Your task to perform on an android device: manage bookmarks in the chrome app Image 0: 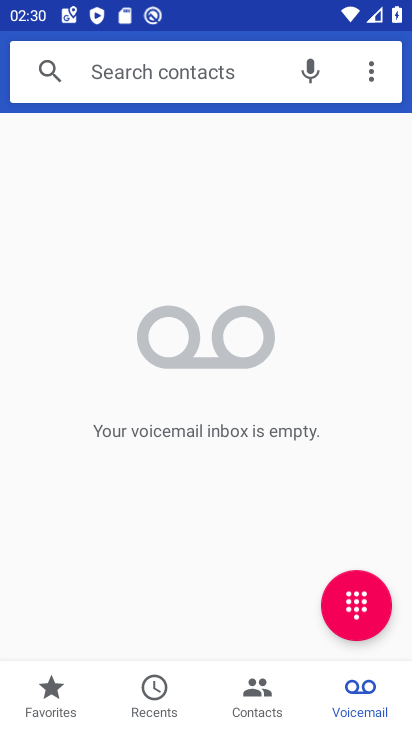
Step 0: press home button
Your task to perform on an android device: manage bookmarks in the chrome app Image 1: 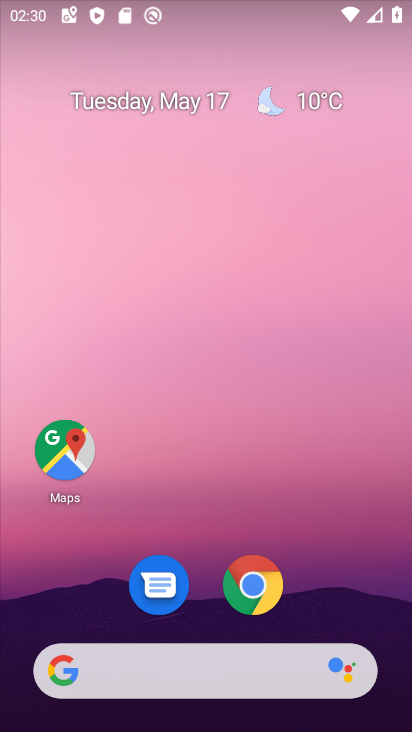
Step 1: click (263, 603)
Your task to perform on an android device: manage bookmarks in the chrome app Image 2: 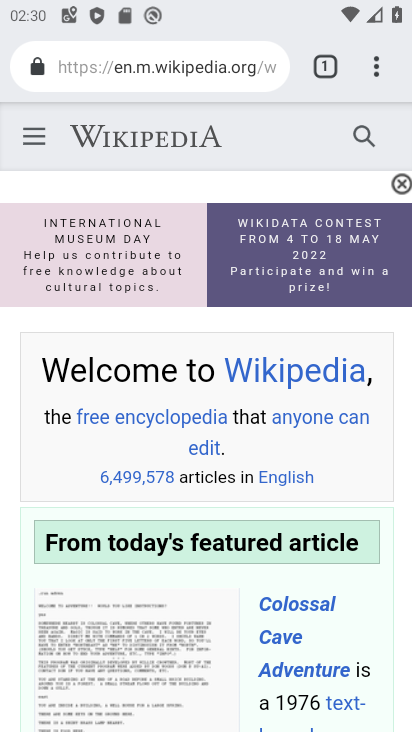
Step 2: click (378, 63)
Your task to perform on an android device: manage bookmarks in the chrome app Image 3: 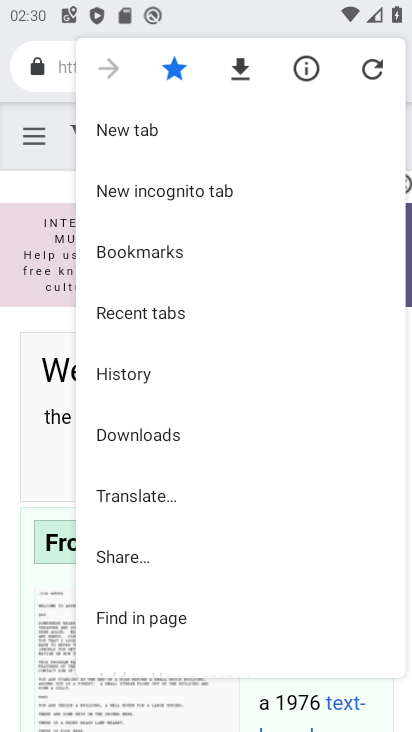
Step 3: click (198, 245)
Your task to perform on an android device: manage bookmarks in the chrome app Image 4: 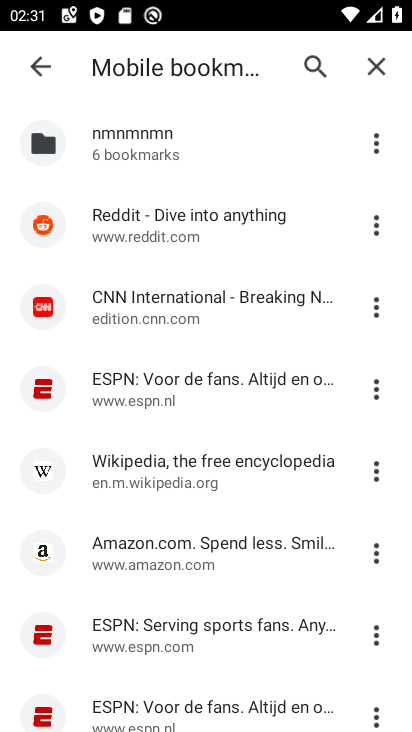
Step 4: click (204, 370)
Your task to perform on an android device: manage bookmarks in the chrome app Image 5: 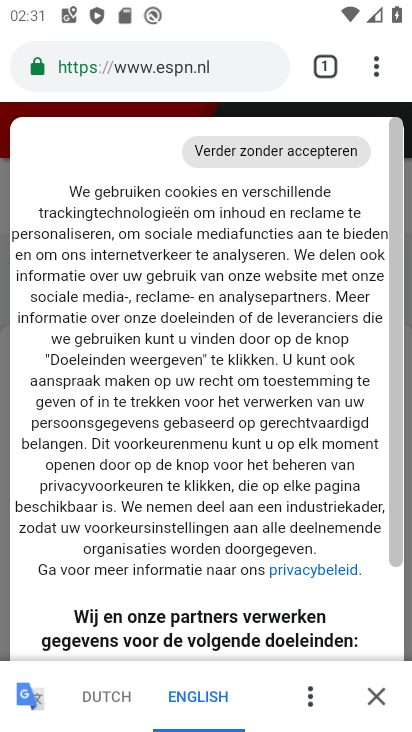
Step 5: click (376, 73)
Your task to perform on an android device: manage bookmarks in the chrome app Image 6: 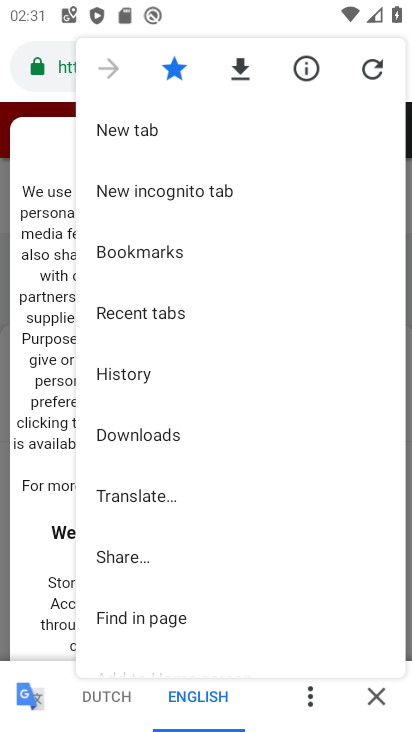
Step 6: click (207, 244)
Your task to perform on an android device: manage bookmarks in the chrome app Image 7: 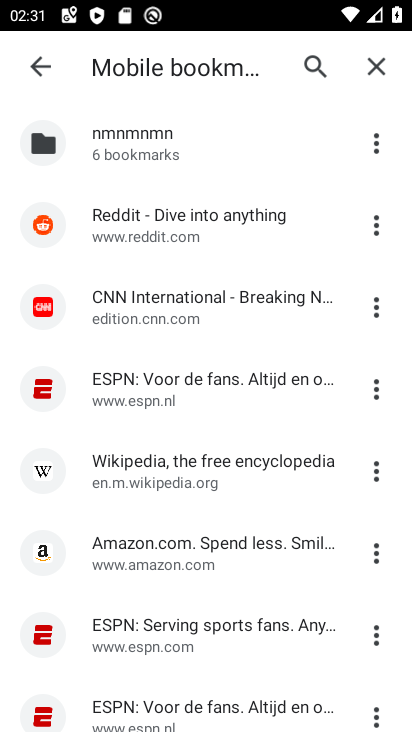
Step 7: click (371, 311)
Your task to perform on an android device: manage bookmarks in the chrome app Image 8: 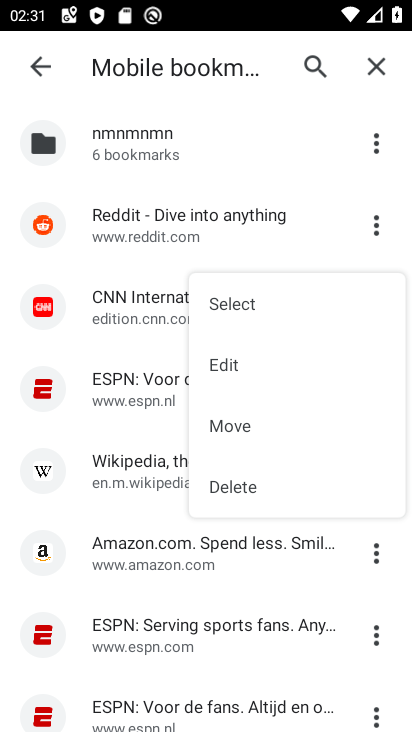
Step 8: click (244, 360)
Your task to perform on an android device: manage bookmarks in the chrome app Image 9: 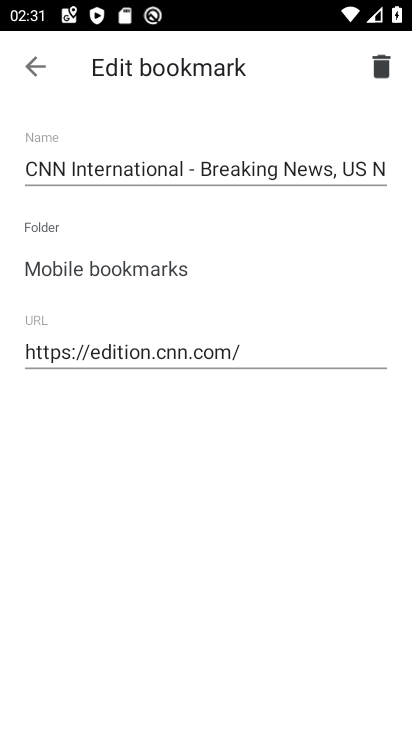
Step 9: click (35, 59)
Your task to perform on an android device: manage bookmarks in the chrome app Image 10: 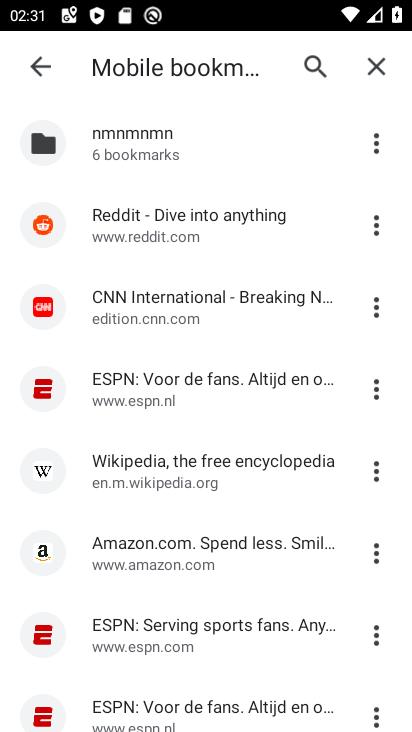
Step 10: click (37, 55)
Your task to perform on an android device: manage bookmarks in the chrome app Image 11: 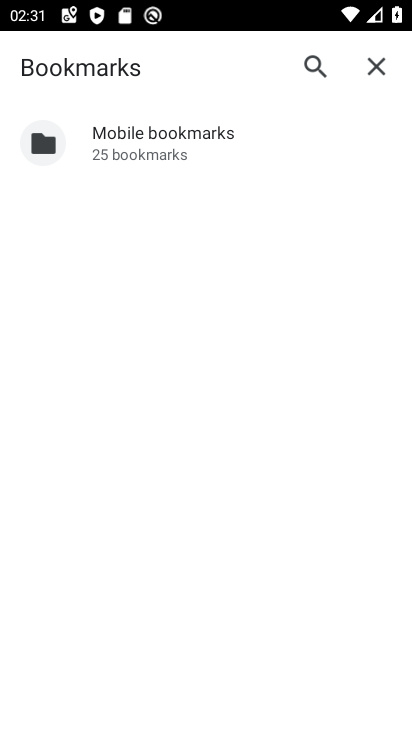
Step 11: click (376, 60)
Your task to perform on an android device: manage bookmarks in the chrome app Image 12: 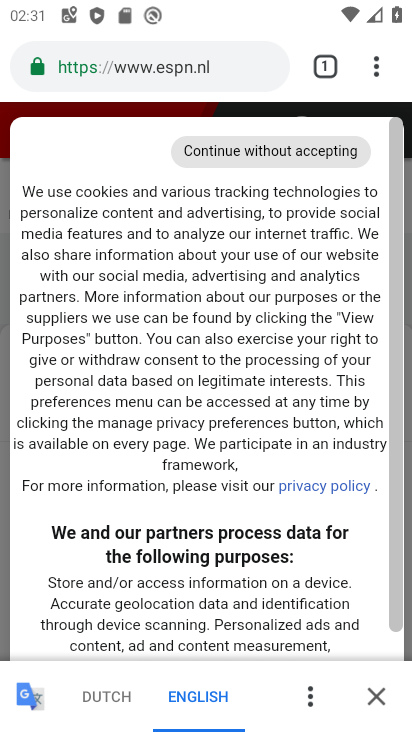
Step 12: task complete